Your task to perform on an android device: Open Chrome and go to the settings page Image 0: 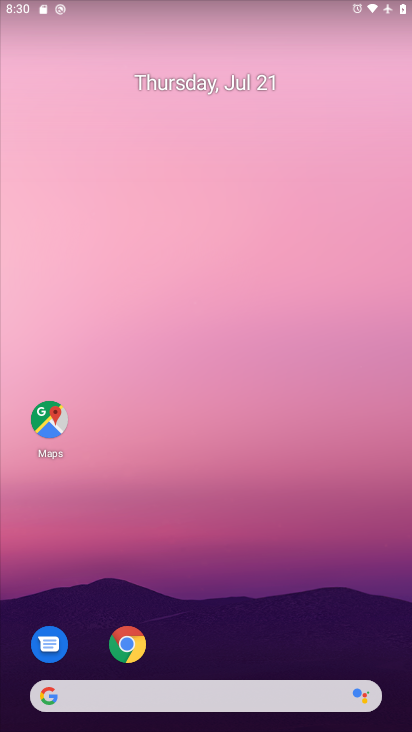
Step 0: drag from (189, 677) to (212, 256)
Your task to perform on an android device: Open Chrome and go to the settings page Image 1: 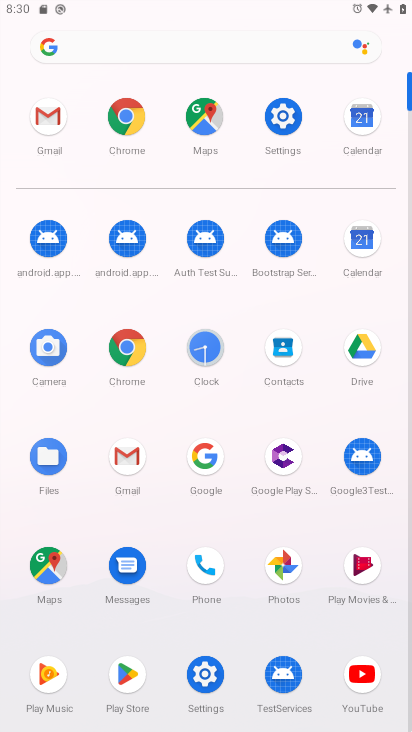
Step 1: click (124, 125)
Your task to perform on an android device: Open Chrome and go to the settings page Image 2: 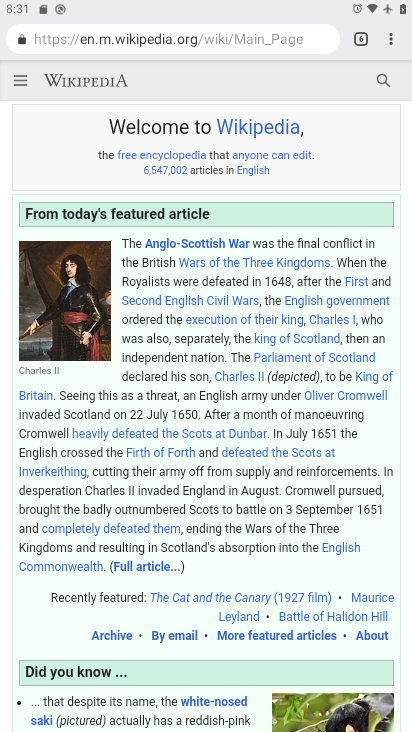
Step 2: click (390, 36)
Your task to perform on an android device: Open Chrome and go to the settings page Image 3: 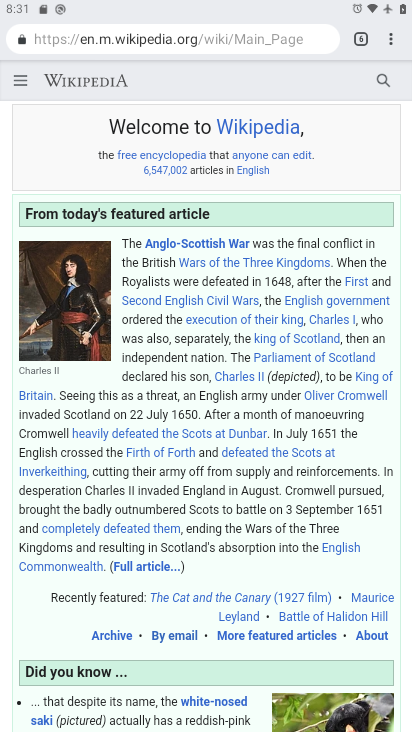
Step 3: click (395, 28)
Your task to perform on an android device: Open Chrome and go to the settings page Image 4: 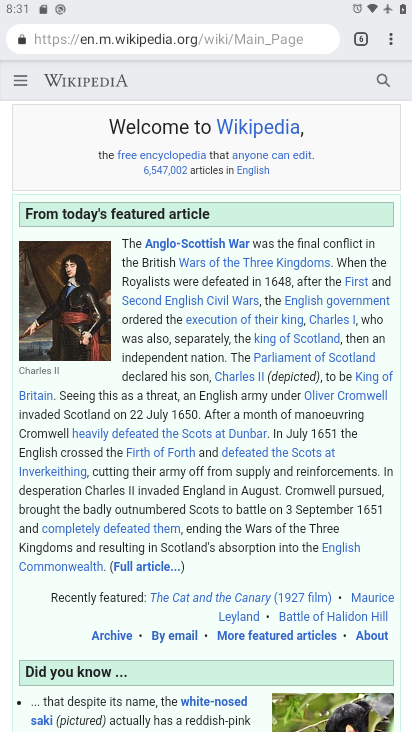
Step 4: click (393, 23)
Your task to perform on an android device: Open Chrome and go to the settings page Image 5: 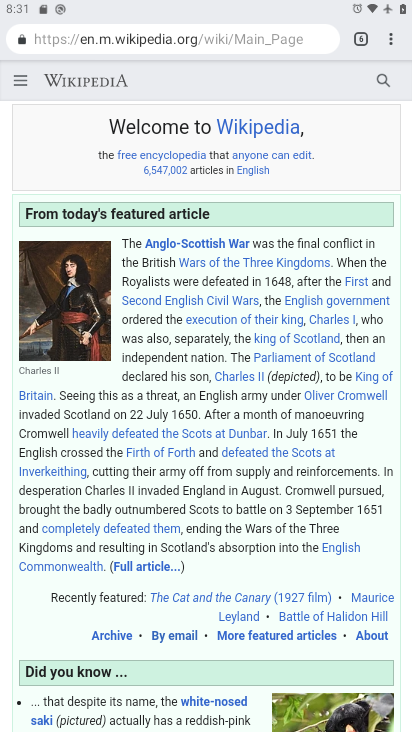
Step 5: click (400, 38)
Your task to perform on an android device: Open Chrome and go to the settings page Image 6: 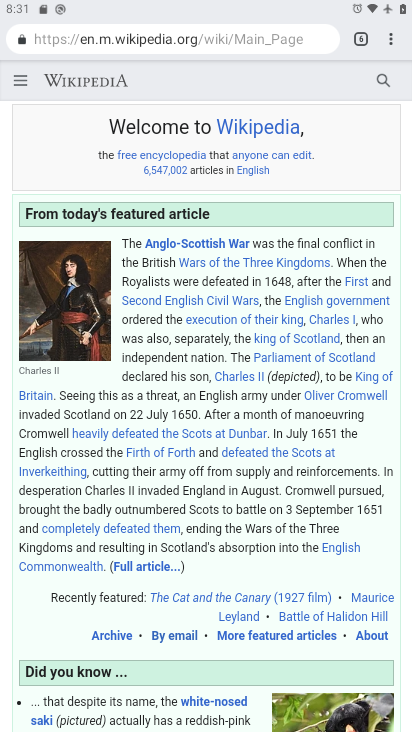
Step 6: click (392, 40)
Your task to perform on an android device: Open Chrome and go to the settings page Image 7: 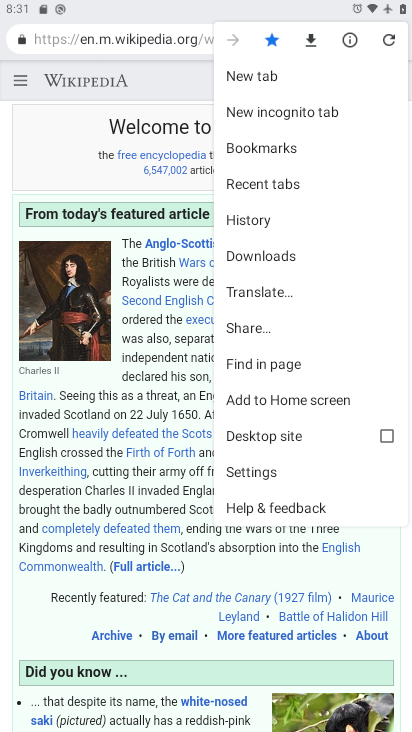
Step 7: click (262, 470)
Your task to perform on an android device: Open Chrome and go to the settings page Image 8: 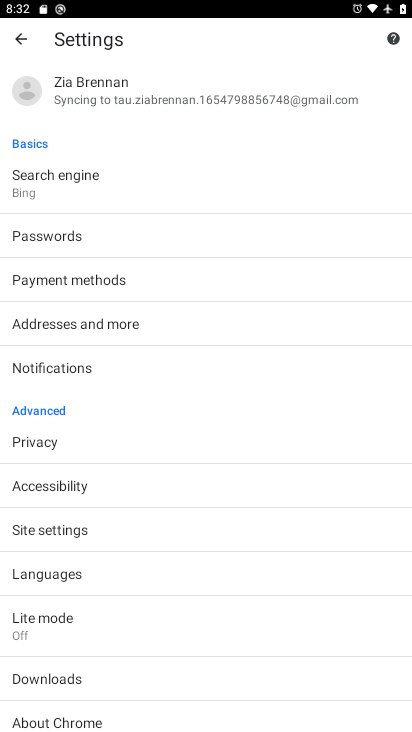
Step 8: task complete